Your task to perform on an android device: turn on notifications settings in the gmail app Image 0: 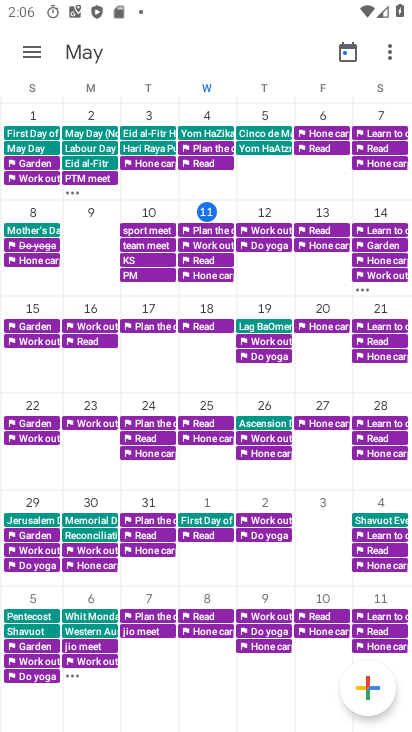
Step 0: press home button
Your task to perform on an android device: turn on notifications settings in the gmail app Image 1: 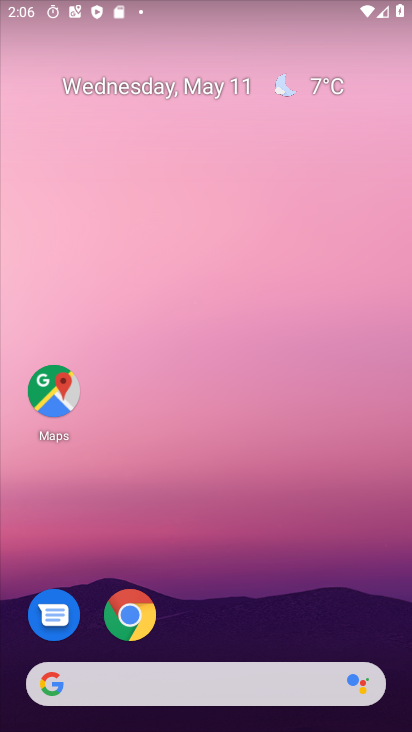
Step 1: drag from (154, 660) to (161, 172)
Your task to perform on an android device: turn on notifications settings in the gmail app Image 2: 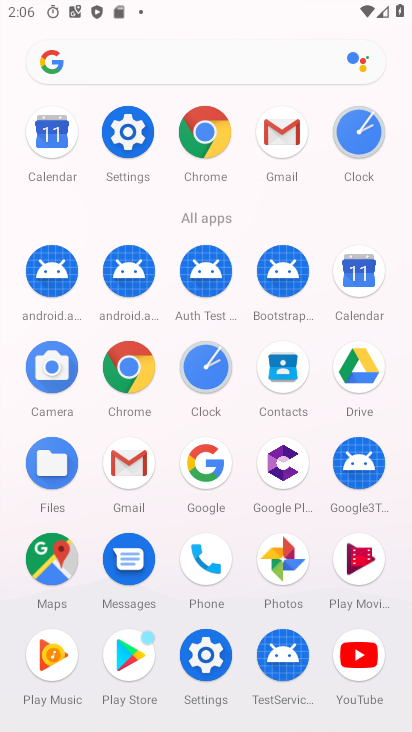
Step 2: click (287, 149)
Your task to perform on an android device: turn on notifications settings in the gmail app Image 3: 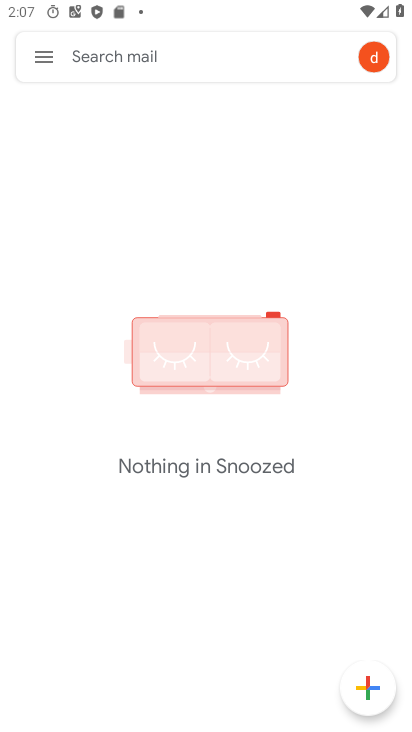
Step 3: click (43, 64)
Your task to perform on an android device: turn on notifications settings in the gmail app Image 4: 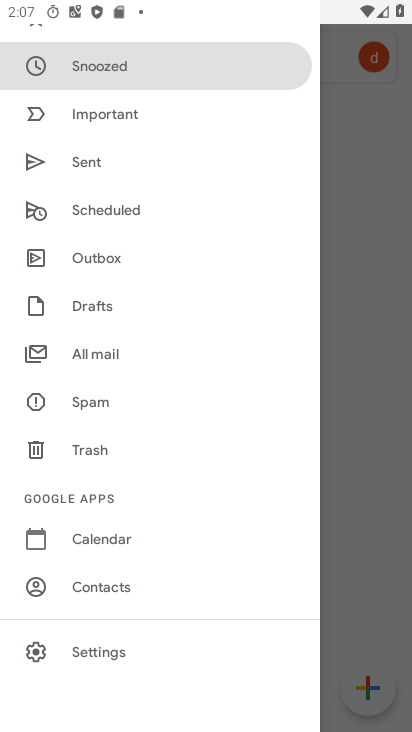
Step 4: click (115, 647)
Your task to perform on an android device: turn on notifications settings in the gmail app Image 5: 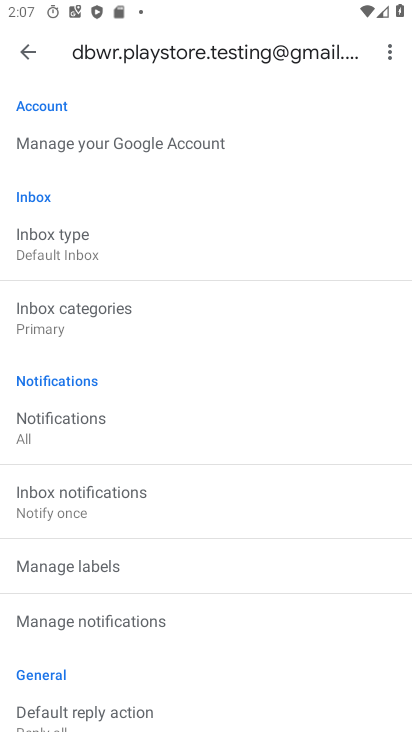
Step 5: click (138, 625)
Your task to perform on an android device: turn on notifications settings in the gmail app Image 6: 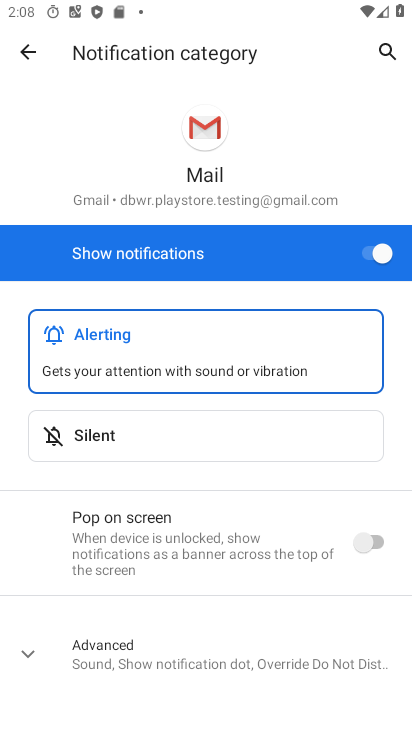
Step 6: task complete